Your task to perform on an android device: What's on my calendar today? Image 0: 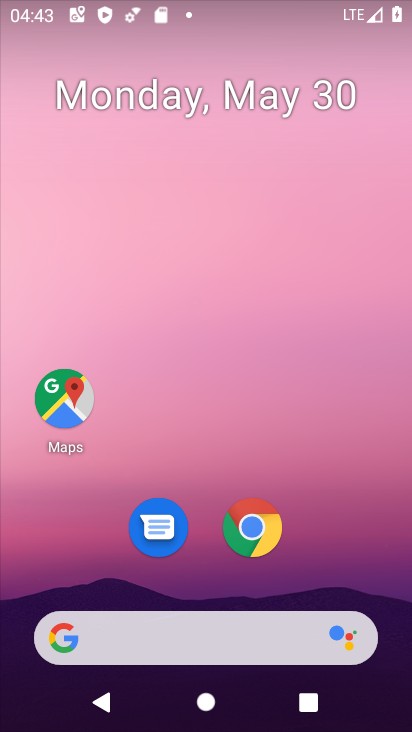
Step 0: drag from (227, 708) to (215, 32)
Your task to perform on an android device: What's on my calendar today? Image 1: 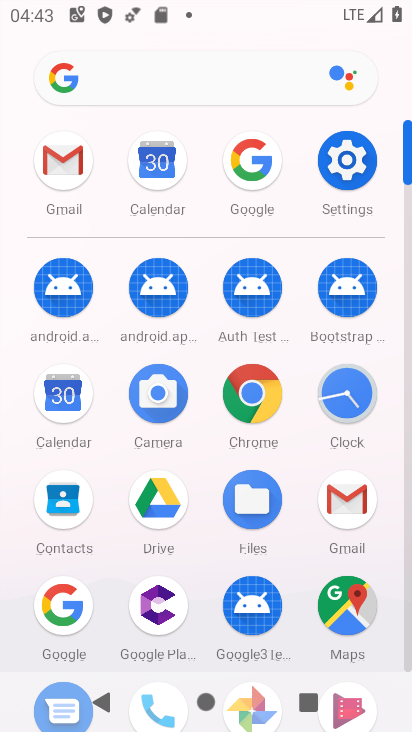
Step 1: click (55, 397)
Your task to perform on an android device: What's on my calendar today? Image 2: 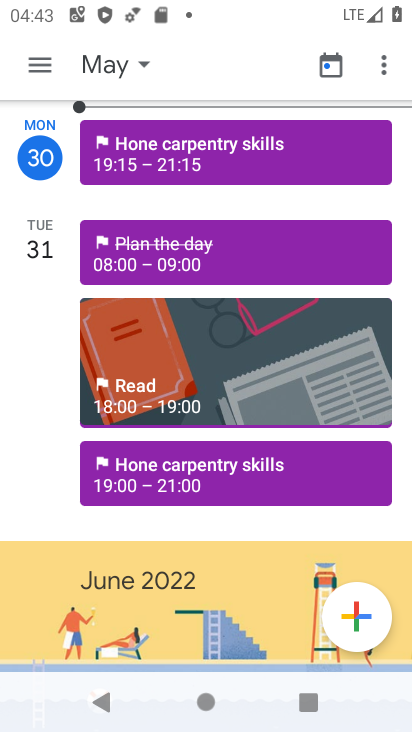
Step 2: click (46, 158)
Your task to perform on an android device: What's on my calendar today? Image 3: 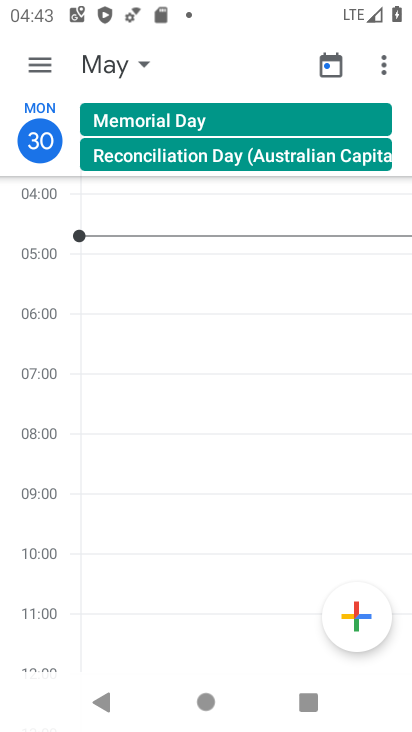
Step 3: task complete